Your task to perform on an android device: check google app version Image 0: 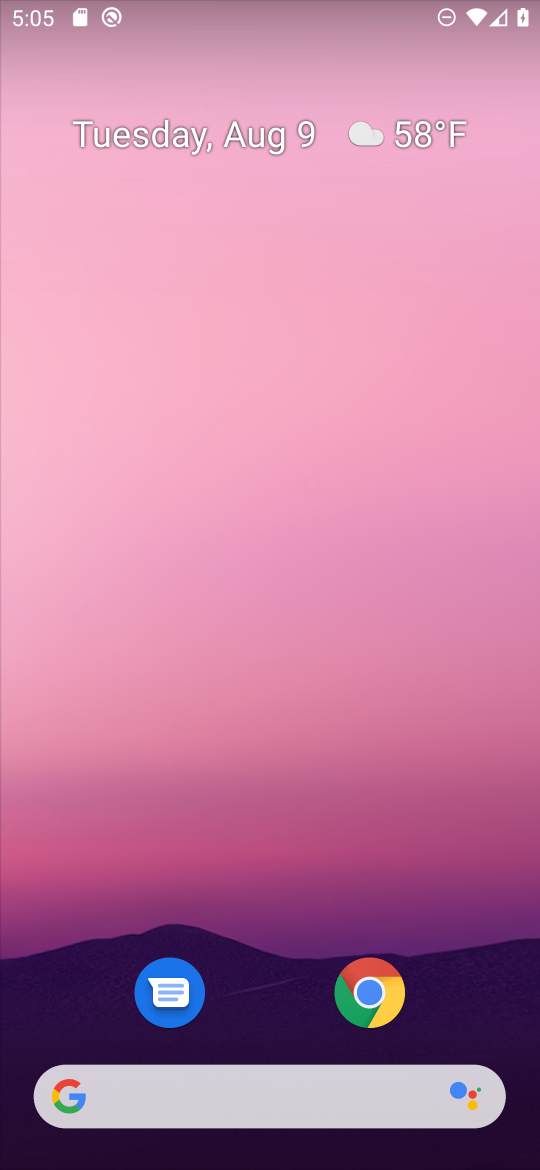
Step 0: drag from (308, 1104) to (219, 354)
Your task to perform on an android device: check google app version Image 1: 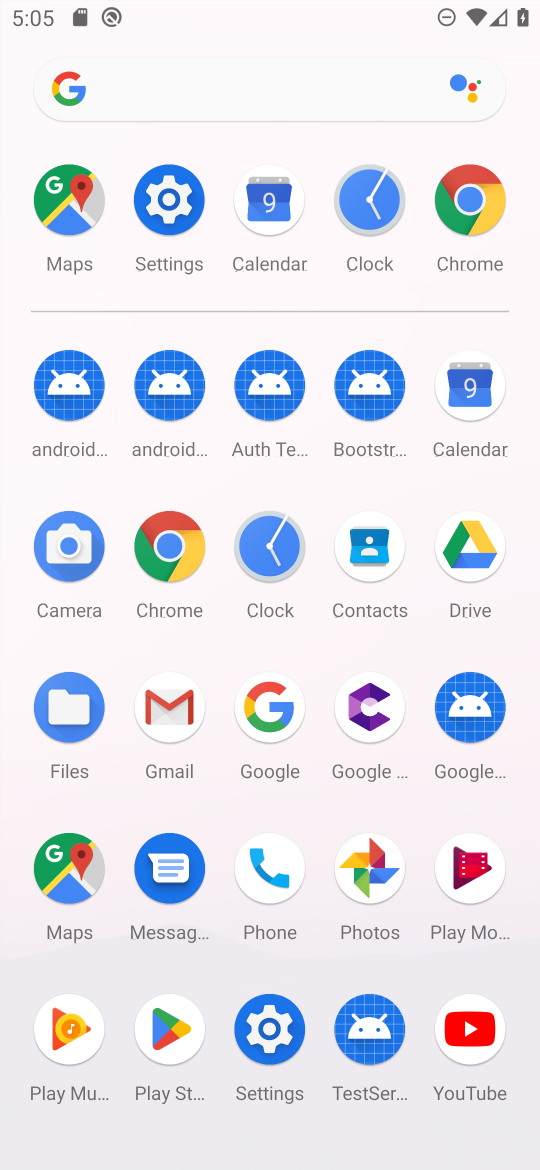
Step 1: click (184, 538)
Your task to perform on an android device: check google app version Image 2: 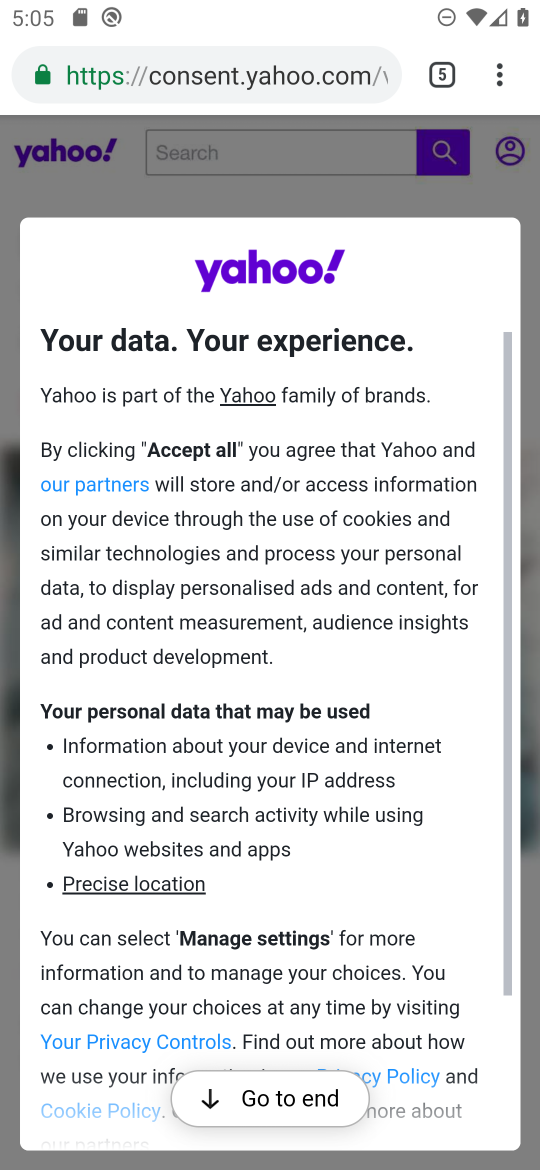
Step 2: click (248, 74)
Your task to perform on an android device: check google app version Image 3: 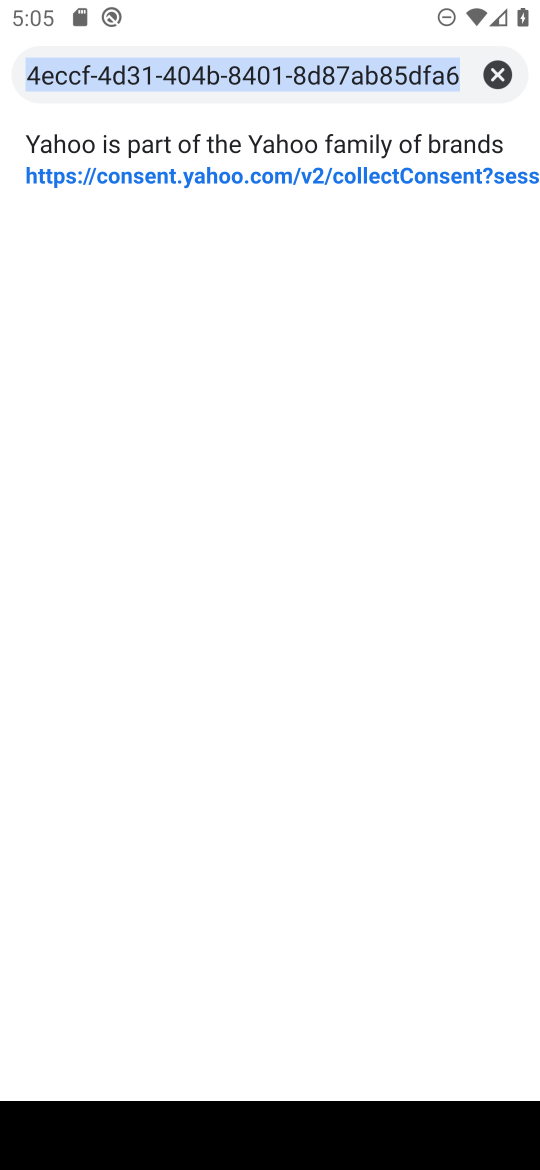
Step 3: click (494, 65)
Your task to perform on an android device: check google app version Image 4: 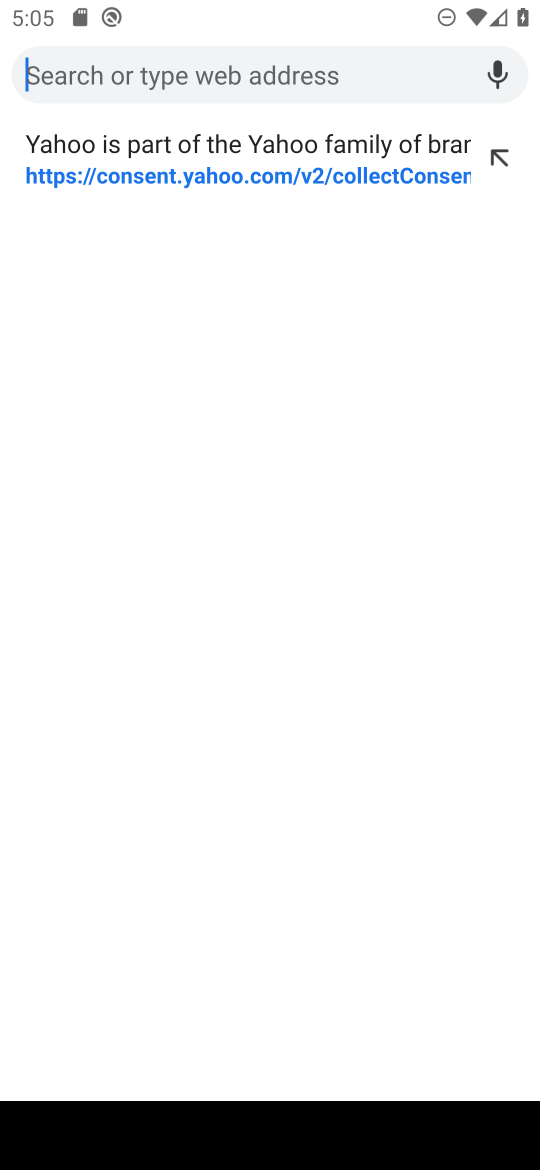
Step 4: click (505, 86)
Your task to perform on an android device: check google app version Image 5: 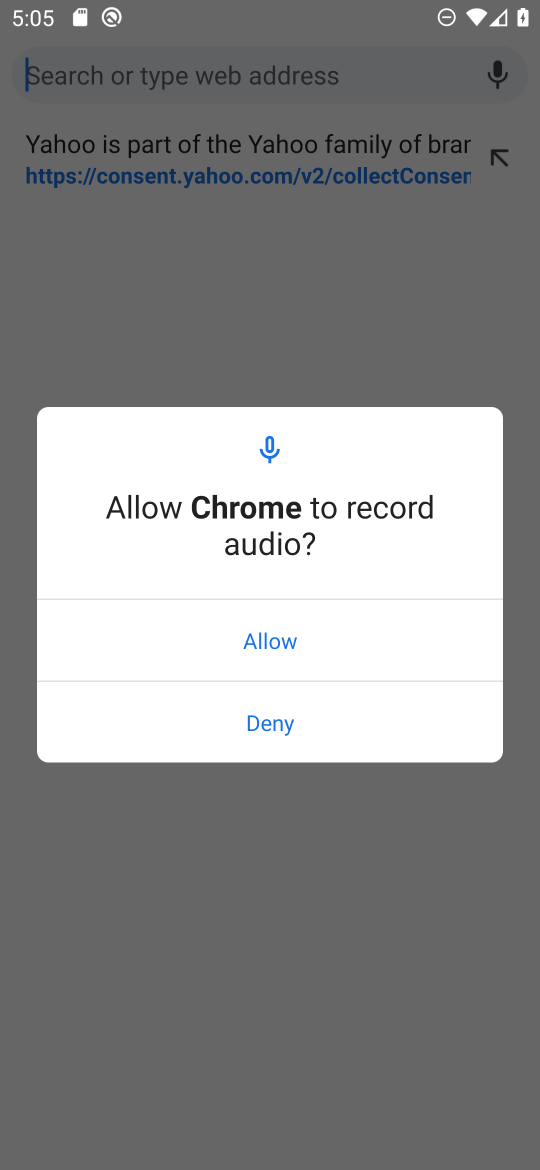
Step 5: click (281, 741)
Your task to perform on an android device: check google app version Image 6: 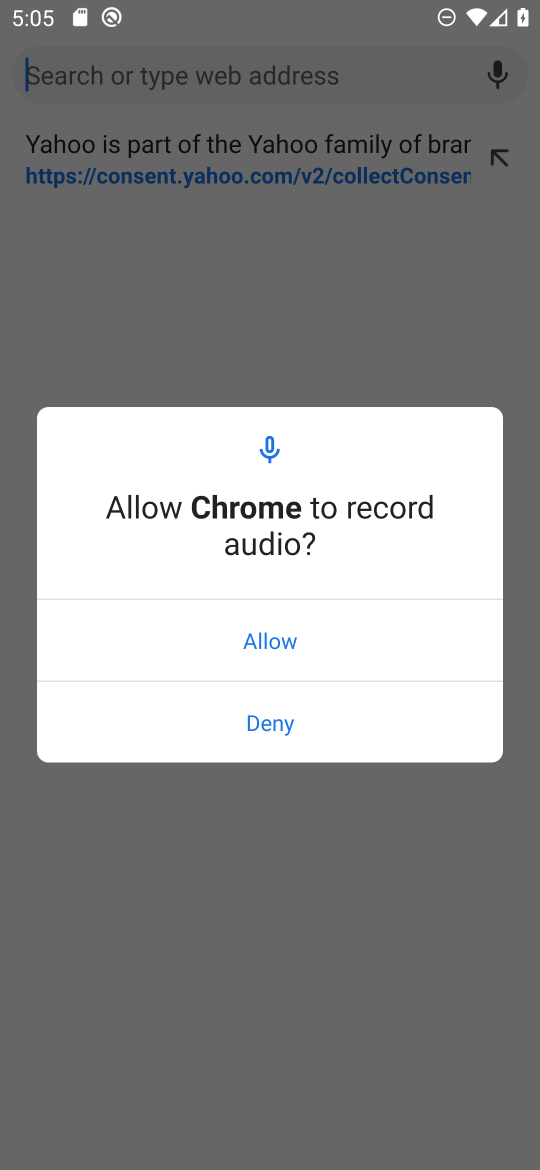
Step 6: click (281, 741)
Your task to perform on an android device: check google app version Image 7: 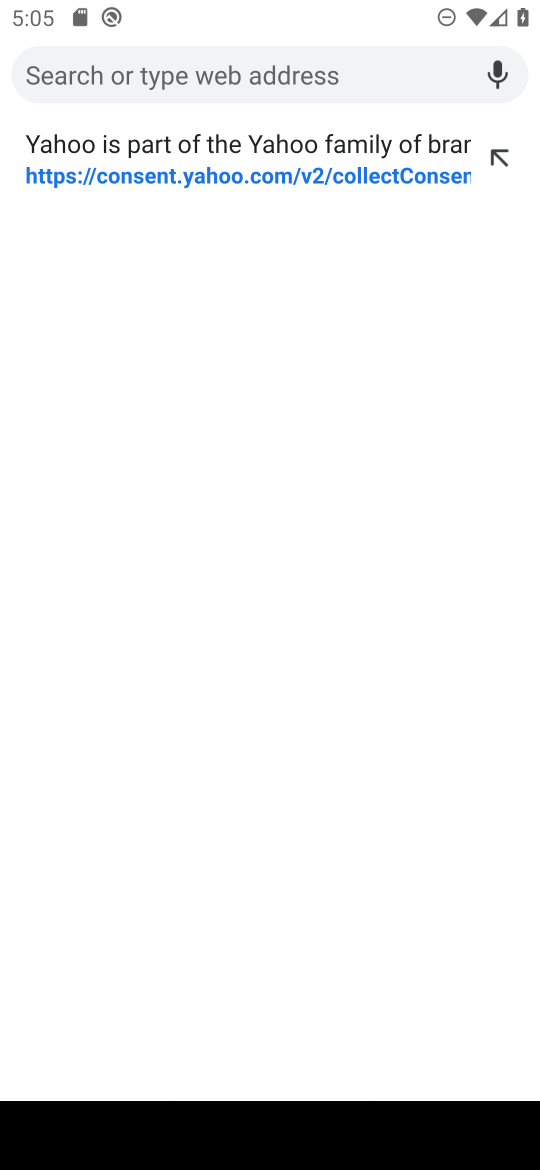
Step 7: press back button
Your task to perform on an android device: check google app version Image 8: 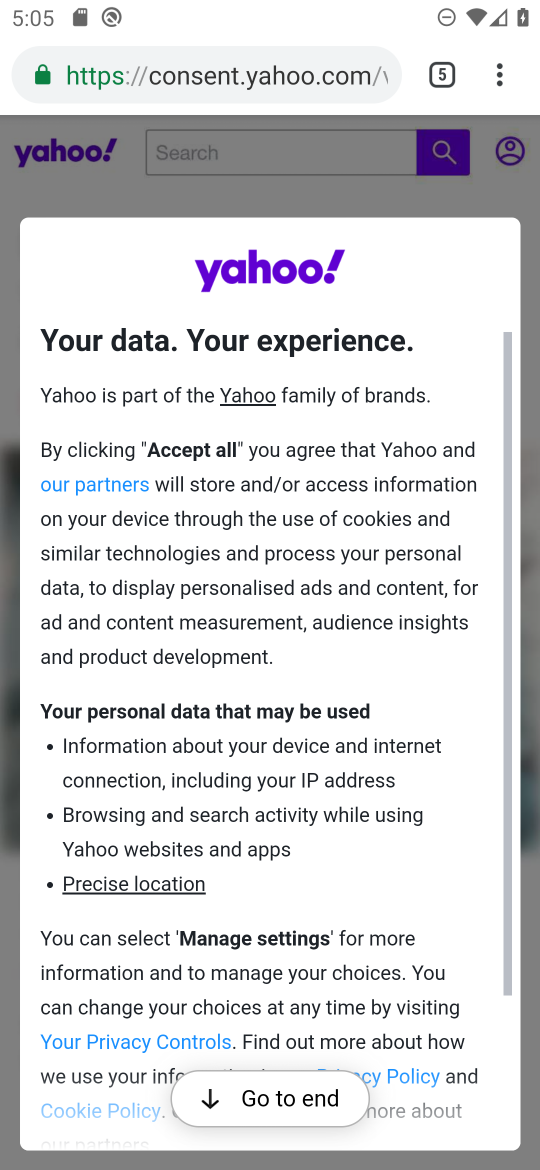
Step 8: click (494, 64)
Your task to perform on an android device: check google app version Image 9: 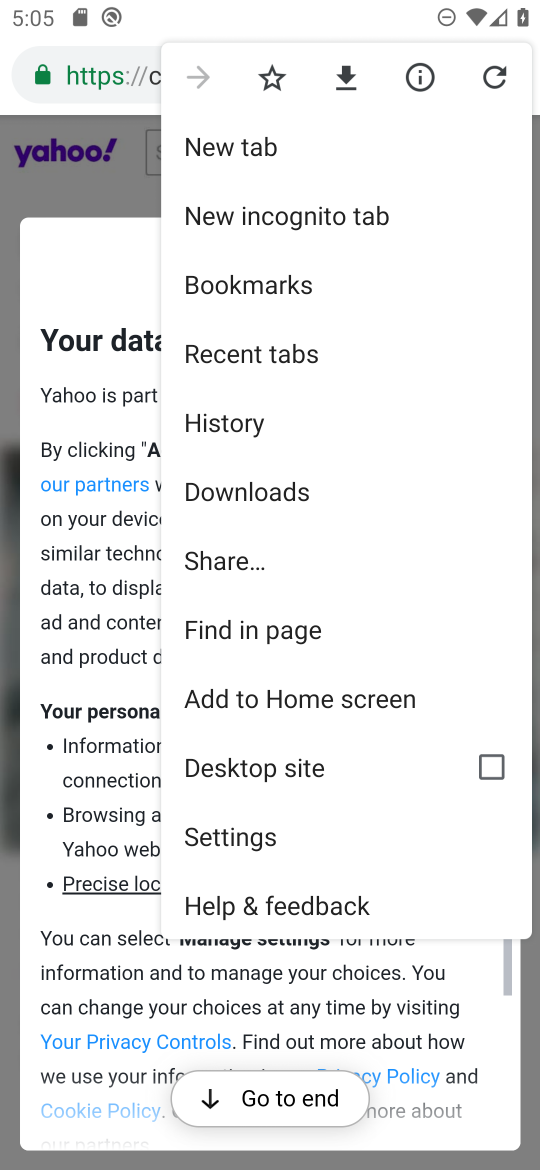
Step 9: click (290, 907)
Your task to perform on an android device: check google app version Image 10: 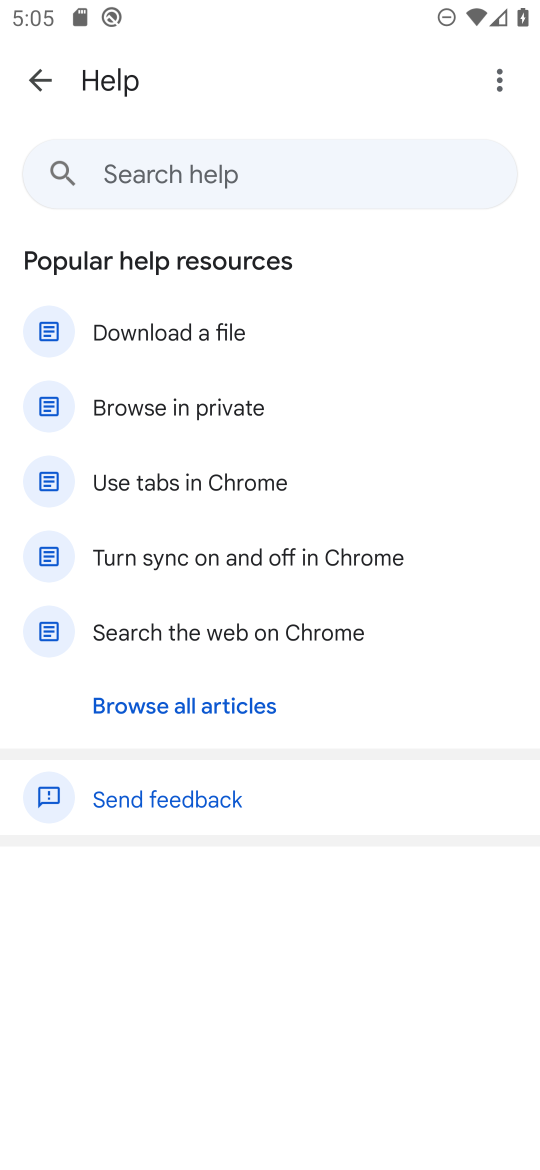
Step 10: click (504, 66)
Your task to perform on an android device: check google app version Image 11: 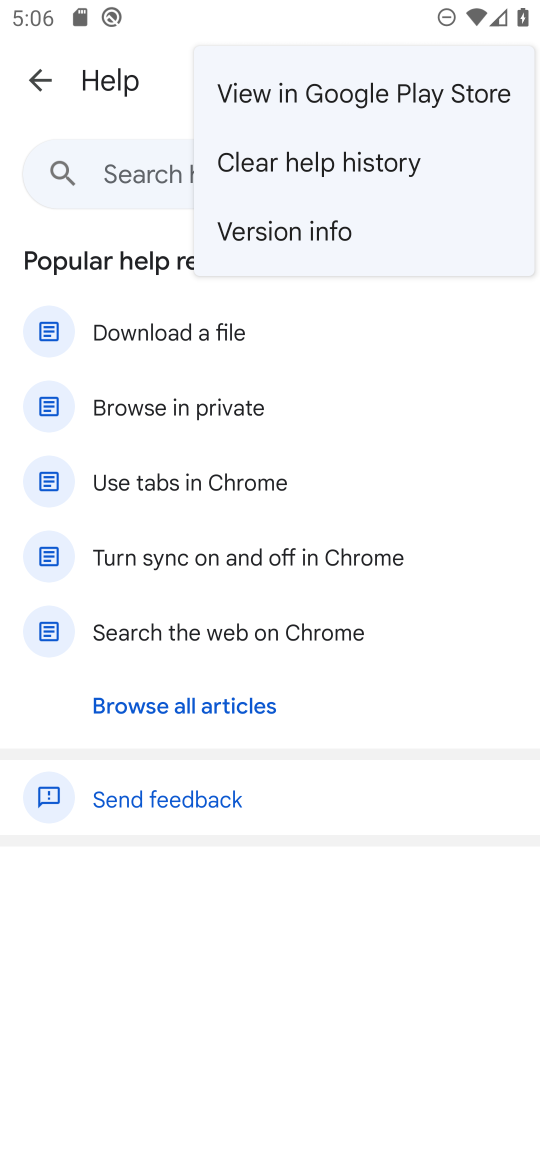
Step 11: click (340, 156)
Your task to perform on an android device: check google app version Image 12: 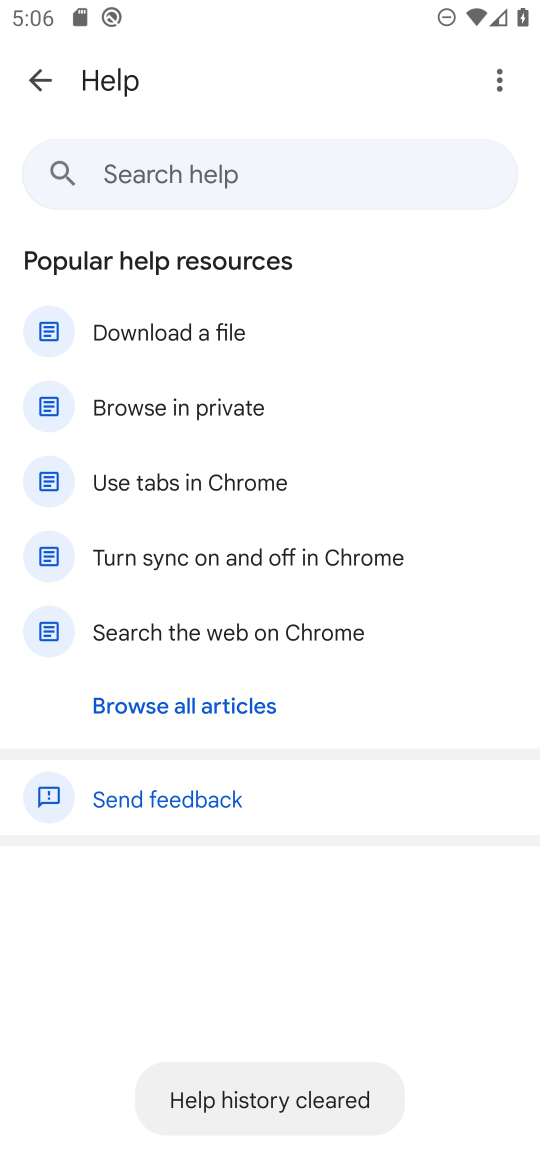
Step 12: click (295, 236)
Your task to perform on an android device: check google app version Image 13: 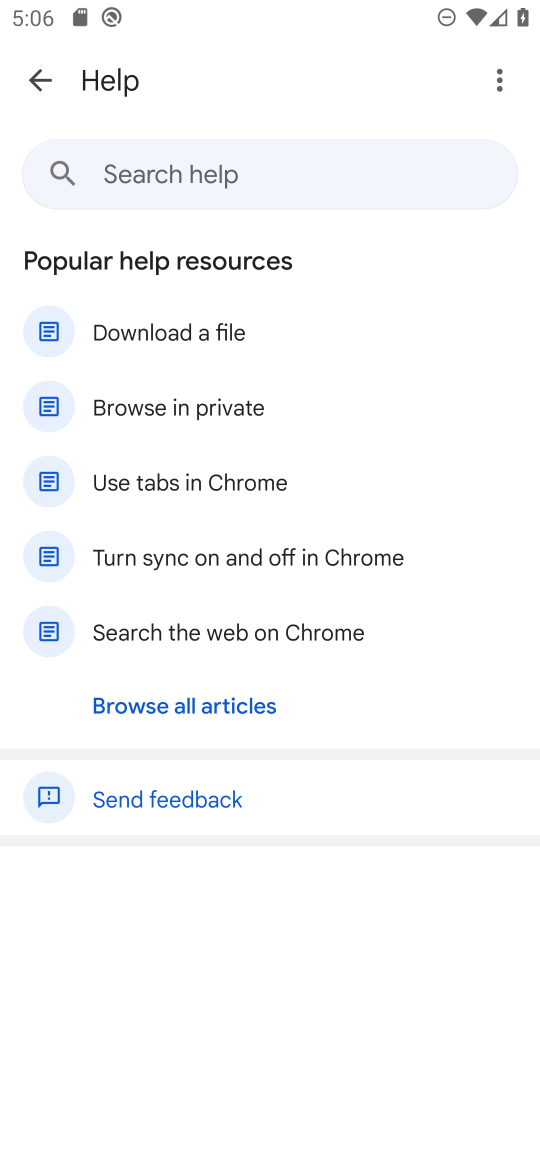
Step 13: click (482, 61)
Your task to perform on an android device: check google app version Image 14: 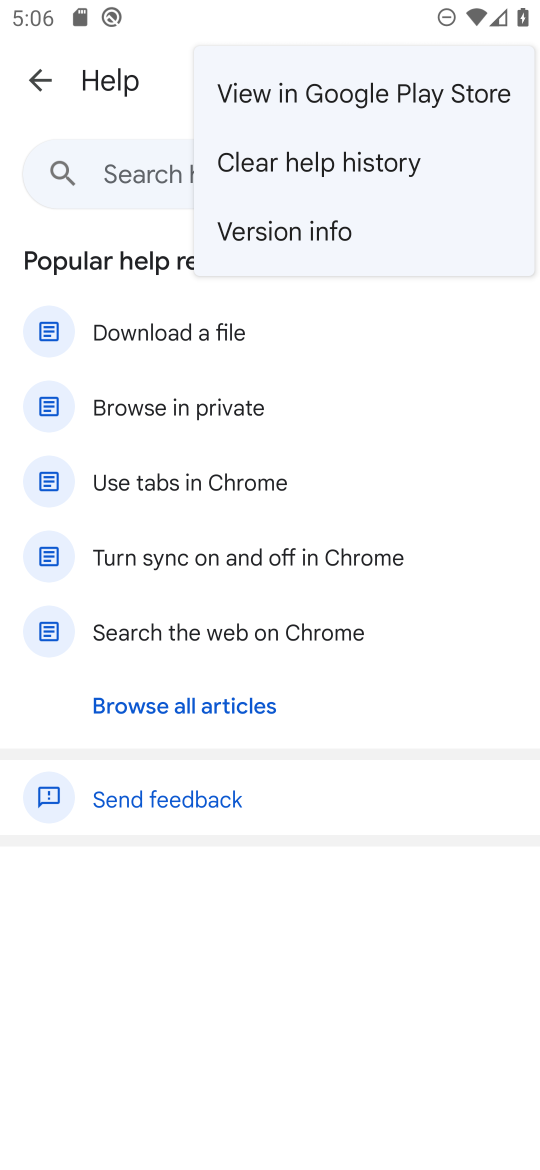
Step 14: click (297, 225)
Your task to perform on an android device: check google app version Image 15: 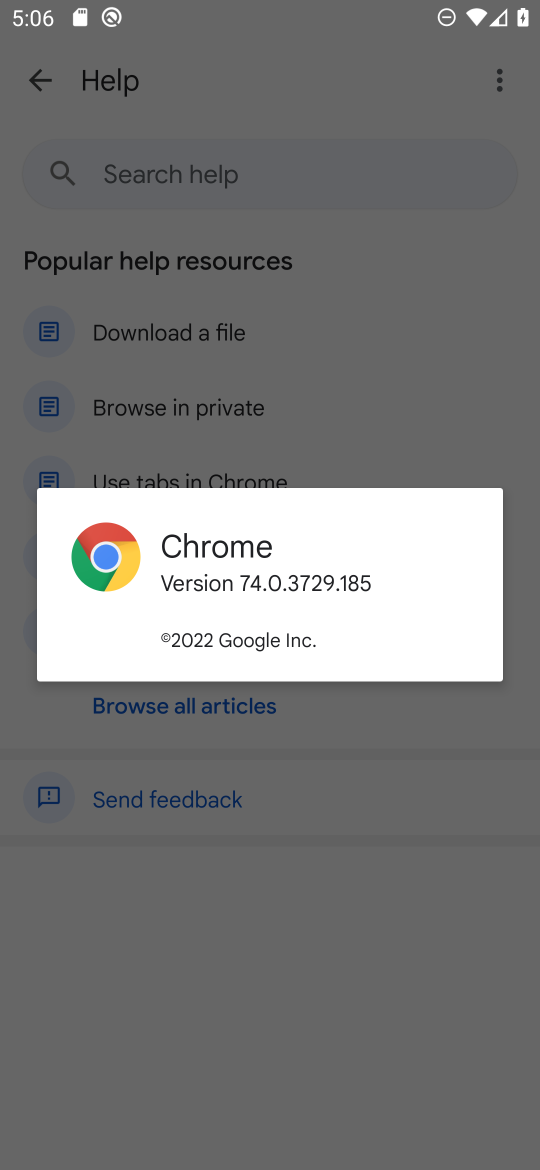
Step 15: task complete